Your task to perform on an android device: open device folders in google photos Image 0: 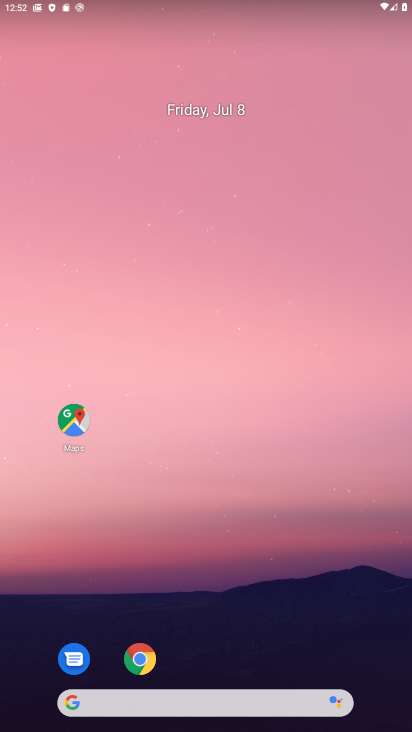
Step 0: drag from (262, 623) to (188, 226)
Your task to perform on an android device: open device folders in google photos Image 1: 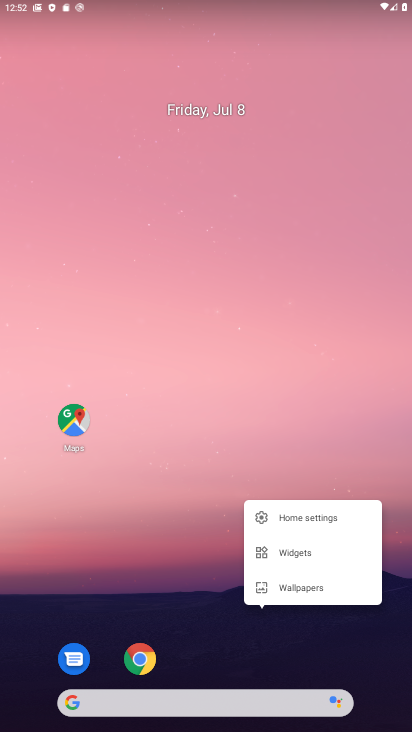
Step 1: drag from (235, 631) to (202, 296)
Your task to perform on an android device: open device folders in google photos Image 2: 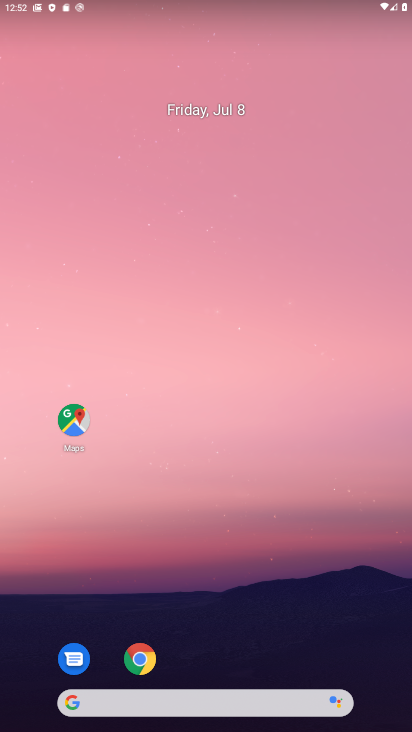
Step 2: drag from (329, 651) to (335, 182)
Your task to perform on an android device: open device folders in google photos Image 3: 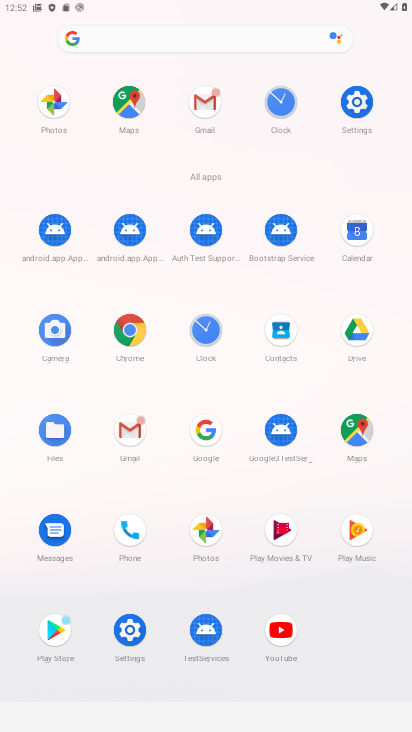
Step 3: click (207, 541)
Your task to perform on an android device: open device folders in google photos Image 4: 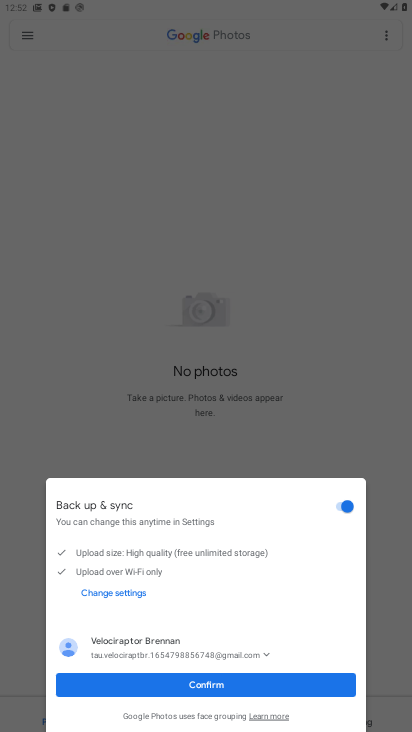
Step 4: click (230, 680)
Your task to perform on an android device: open device folders in google photos Image 5: 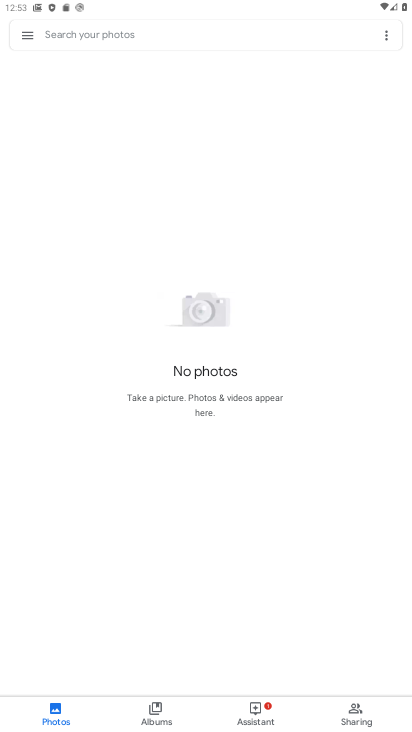
Step 5: click (22, 42)
Your task to perform on an android device: open device folders in google photos Image 6: 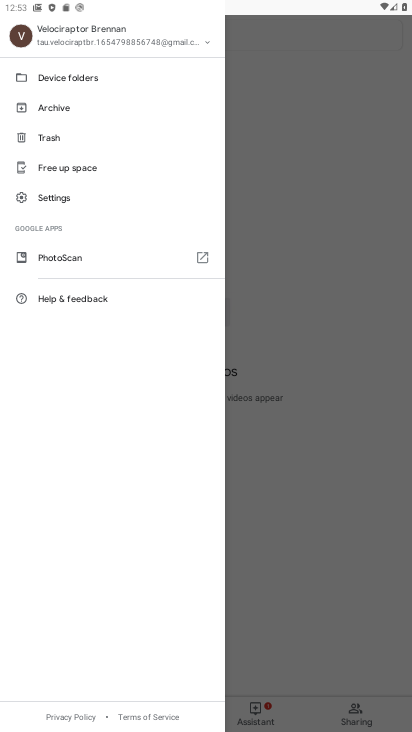
Step 6: click (73, 77)
Your task to perform on an android device: open device folders in google photos Image 7: 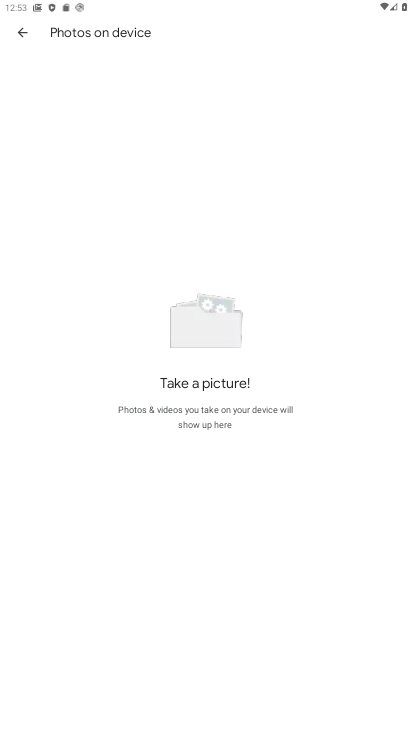
Step 7: task complete